Your task to perform on an android device: What's on my calendar today? Image 0: 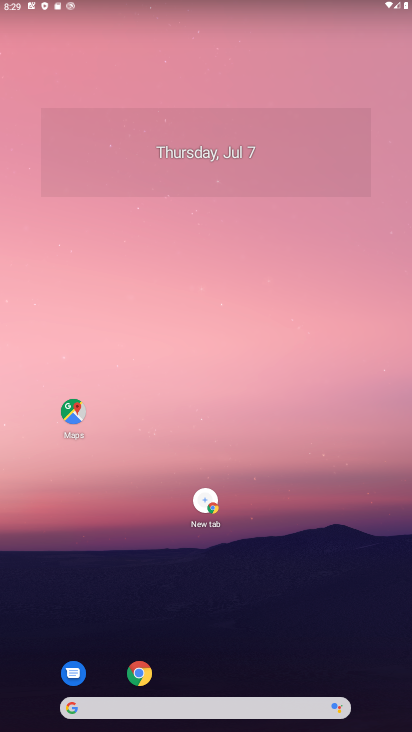
Step 0: press home button
Your task to perform on an android device: What's on my calendar today? Image 1: 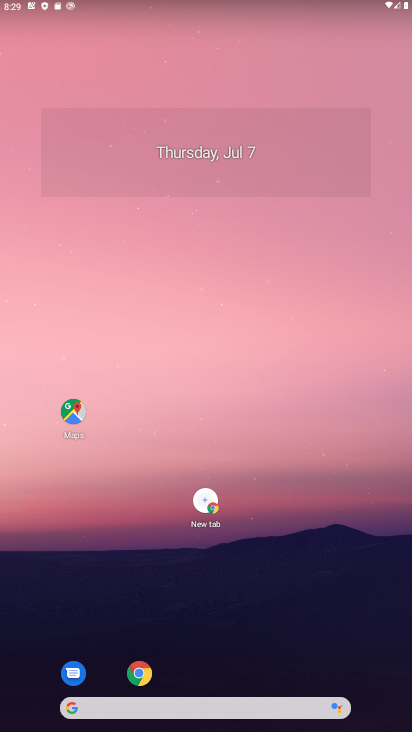
Step 1: drag from (281, 586) to (197, 119)
Your task to perform on an android device: What's on my calendar today? Image 2: 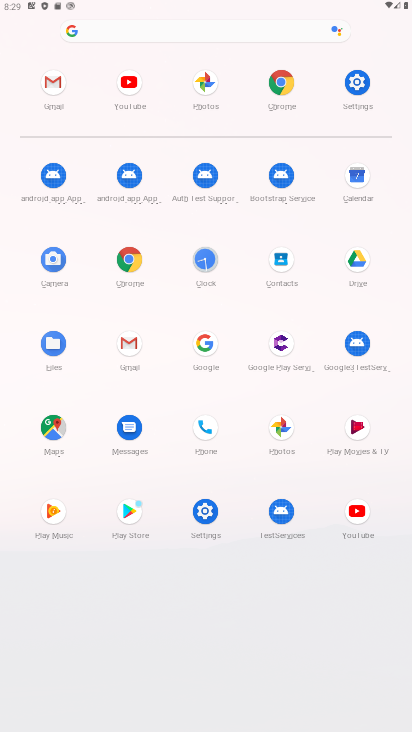
Step 2: click (364, 165)
Your task to perform on an android device: What's on my calendar today? Image 3: 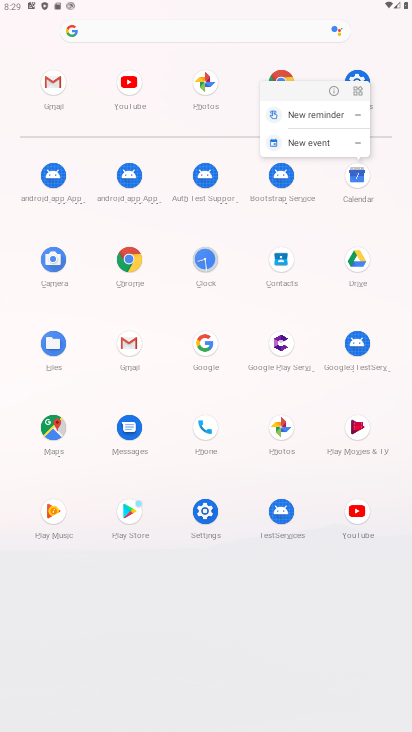
Step 3: click (355, 181)
Your task to perform on an android device: What's on my calendar today? Image 4: 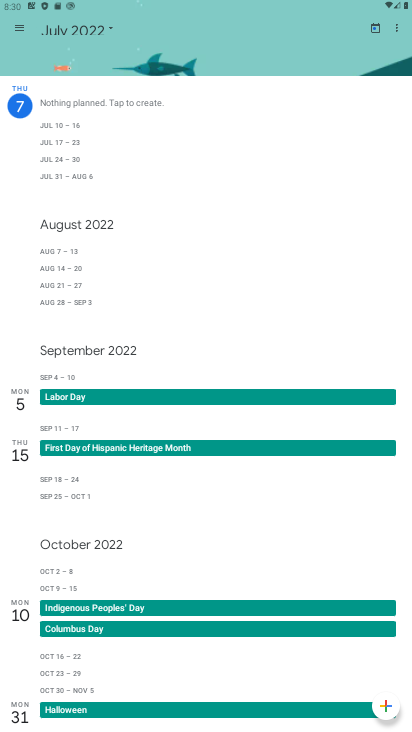
Step 4: click (20, 30)
Your task to perform on an android device: What's on my calendar today? Image 5: 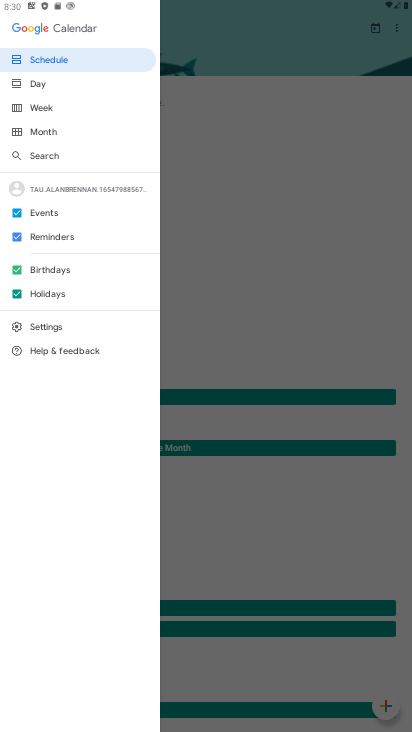
Step 5: click (48, 85)
Your task to perform on an android device: What's on my calendar today? Image 6: 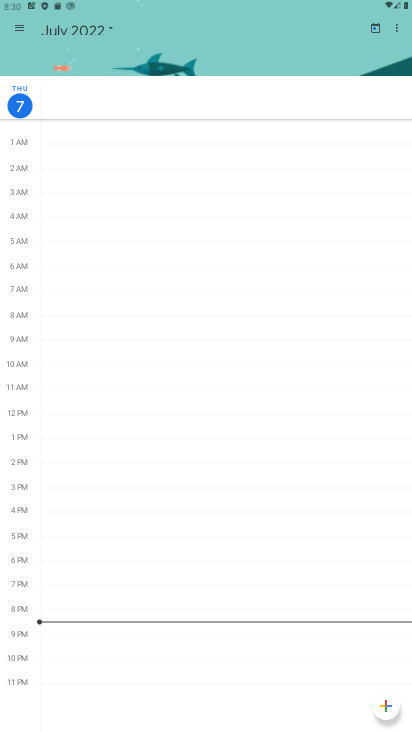
Step 6: task complete